Your task to perform on an android device: Play the last video I watched on Youtube Image 0: 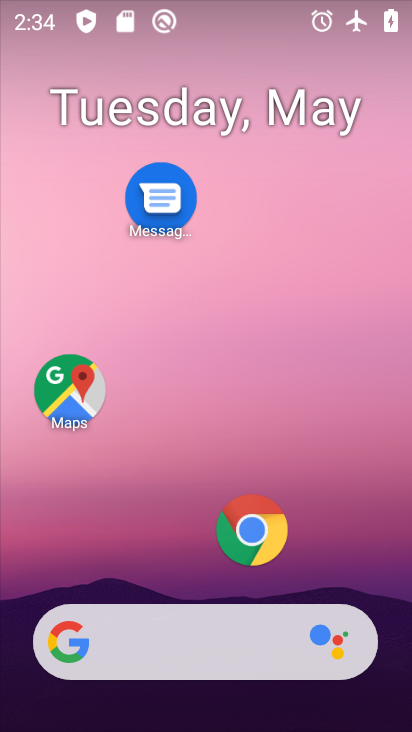
Step 0: drag from (216, 577) to (258, 201)
Your task to perform on an android device: Play the last video I watched on Youtube Image 1: 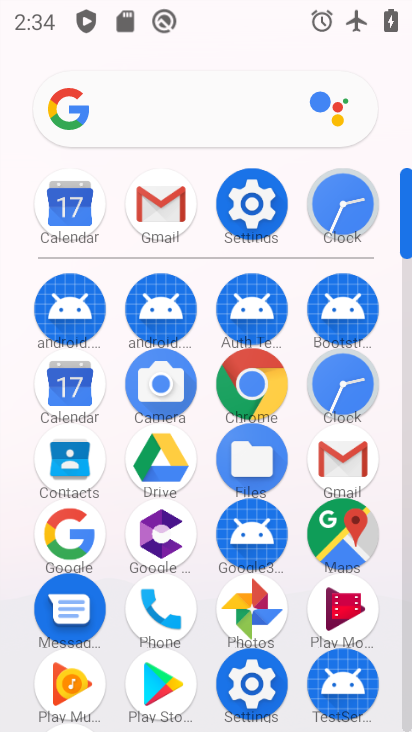
Step 1: click (340, 603)
Your task to perform on an android device: Play the last video I watched on Youtube Image 2: 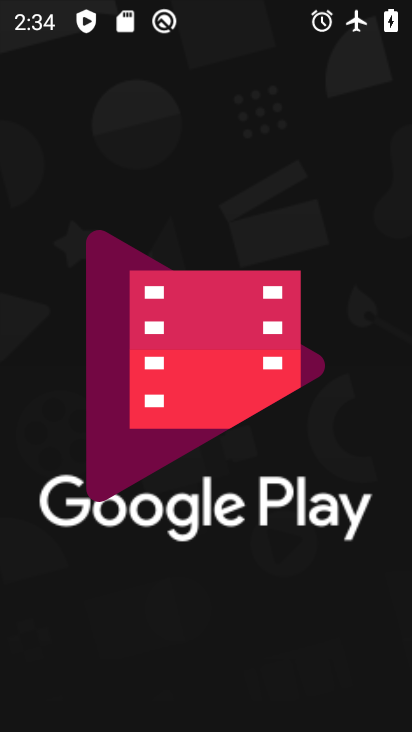
Step 2: press home button
Your task to perform on an android device: Play the last video I watched on Youtube Image 3: 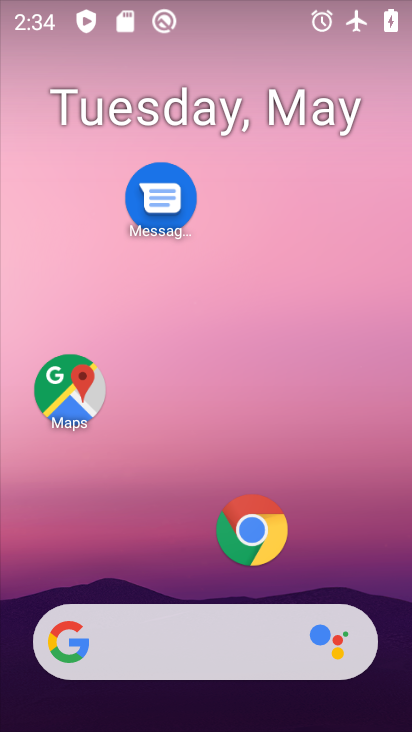
Step 3: drag from (184, 581) to (213, 296)
Your task to perform on an android device: Play the last video I watched on Youtube Image 4: 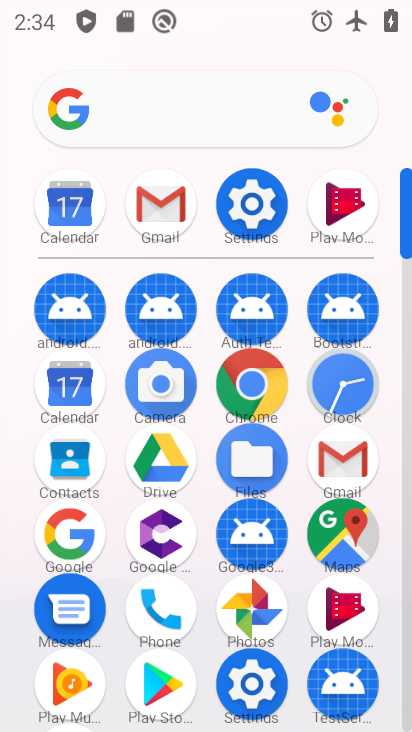
Step 4: drag from (275, 643) to (303, 404)
Your task to perform on an android device: Play the last video I watched on Youtube Image 5: 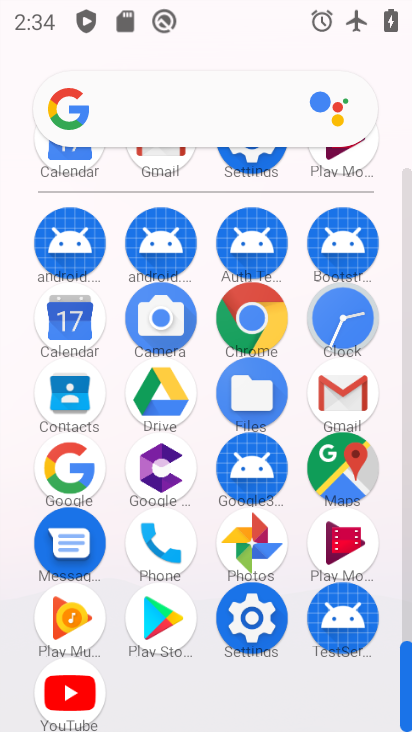
Step 5: click (66, 687)
Your task to perform on an android device: Play the last video I watched on Youtube Image 6: 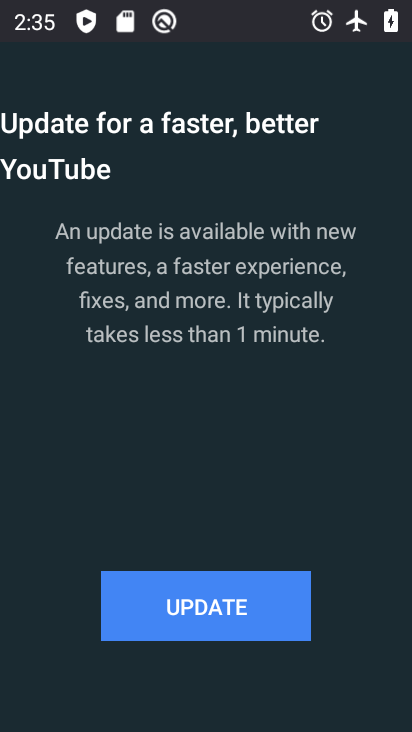
Step 6: click (201, 631)
Your task to perform on an android device: Play the last video I watched on Youtube Image 7: 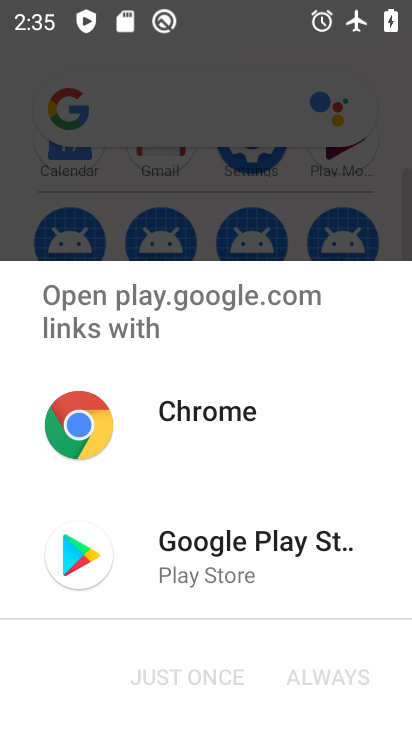
Step 7: click (252, 560)
Your task to perform on an android device: Play the last video I watched on Youtube Image 8: 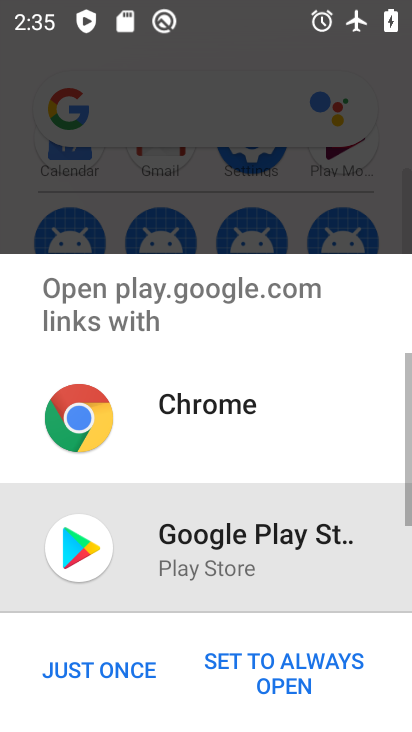
Step 8: click (135, 662)
Your task to perform on an android device: Play the last video I watched on Youtube Image 9: 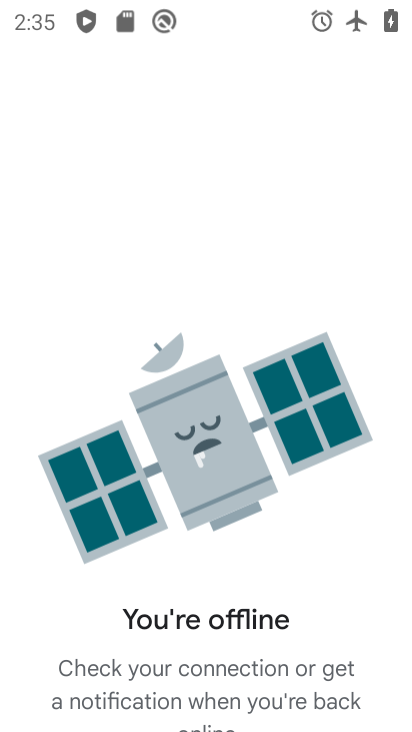
Step 9: task complete